Your task to perform on an android device: Show me productivity apps on the Play Store Image 0: 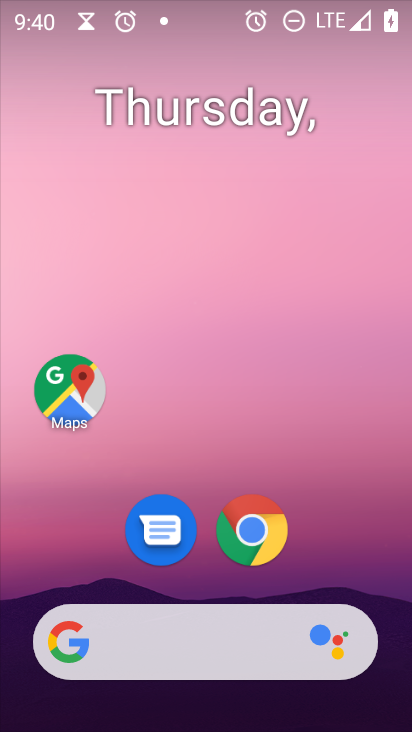
Step 0: drag from (332, 556) to (263, 14)
Your task to perform on an android device: Show me productivity apps on the Play Store Image 1: 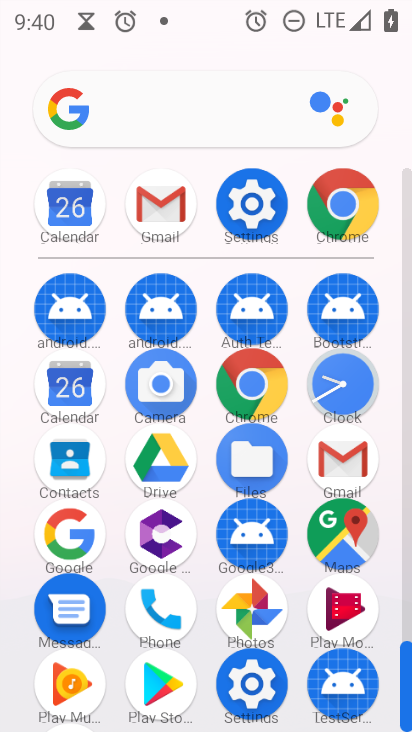
Step 1: drag from (16, 562) to (29, 250)
Your task to perform on an android device: Show me productivity apps on the Play Store Image 2: 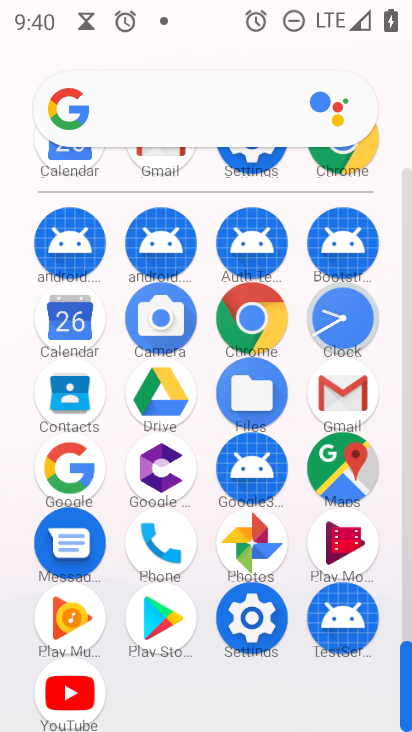
Step 2: click (162, 608)
Your task to perform on an android device: Show me productivity apps on the Play Store Image 3: 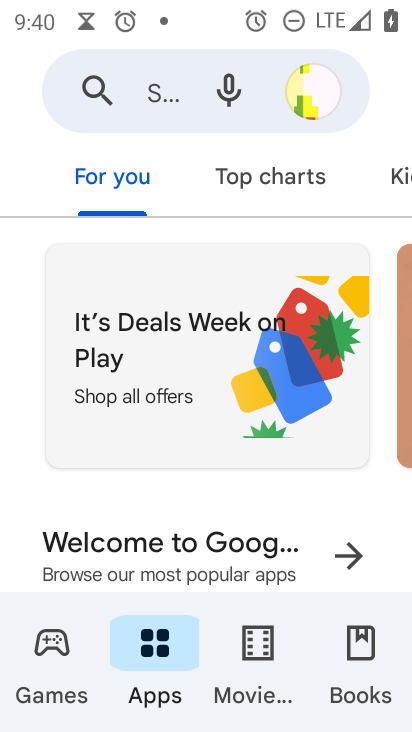
Step 3: drag from (371, 169) to (109, 170)
Your task to perform on an android device: Show me productivity apps on the Play Store Image 4: 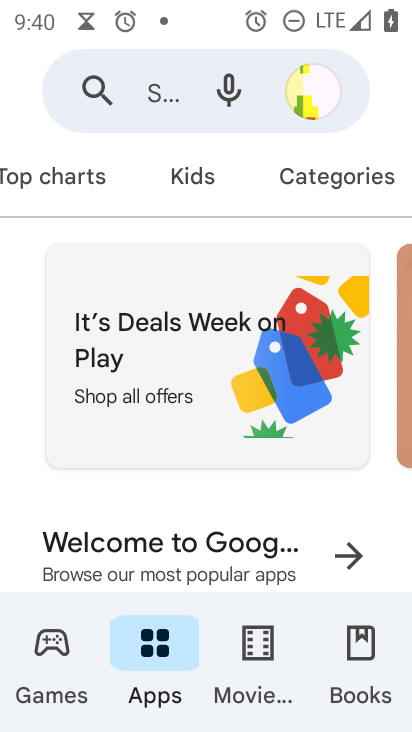
Step 4: click (323, 175)
Your task to perform on an android device: Show me productivity apps on the Play Store Image 5: 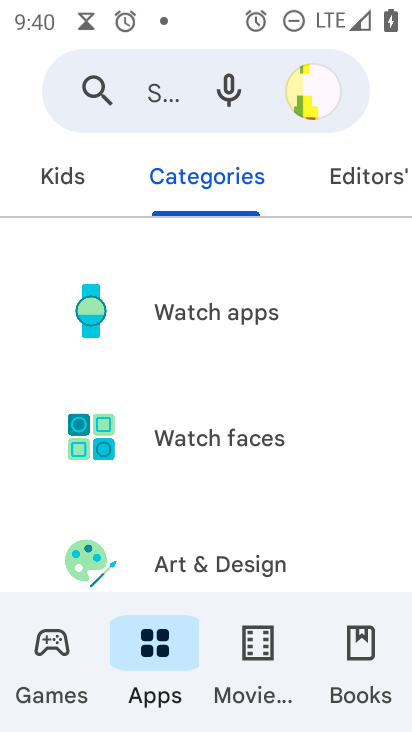
Step 5: drag from (269, 541) to (266, 214)
Your task to perform on an android device: Show me productivity apps on the Play Store Image 6: 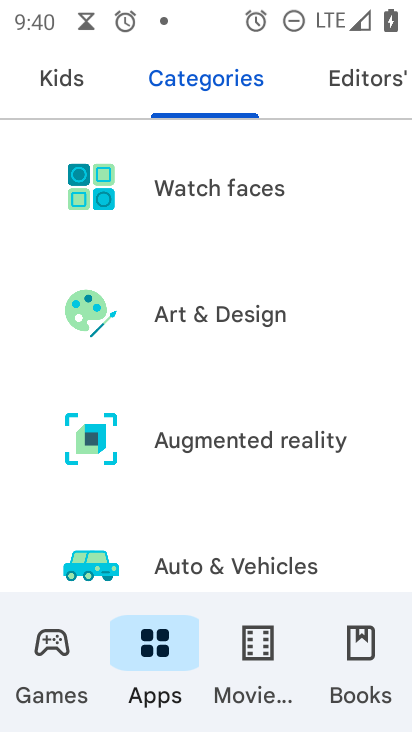
Step 6: drag from (268, 560) to (267, 198)
Your task to perform on an android device: Show me productivity apps on the Play Store Image 7: 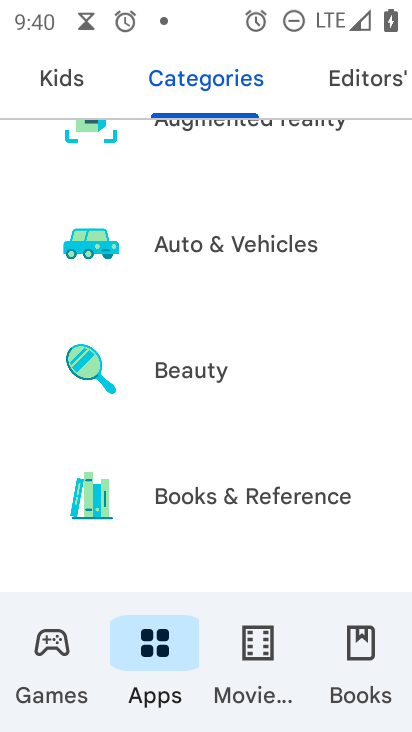
Step 7: drag from (267, 512) to (258, 190)
Your task to perform on an android device: Show me productivity apps on the Play Store Image 8: 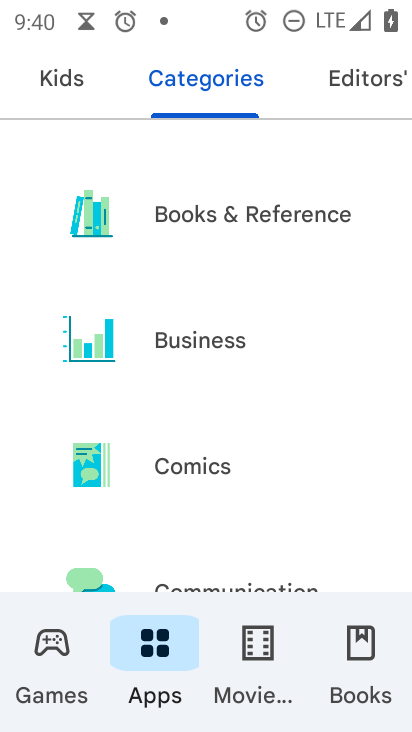
Step 8: drag from (263, 488) to (291, 185)
Your task to perform on an android device: Show me productivity apps on the Play Store Image 9: 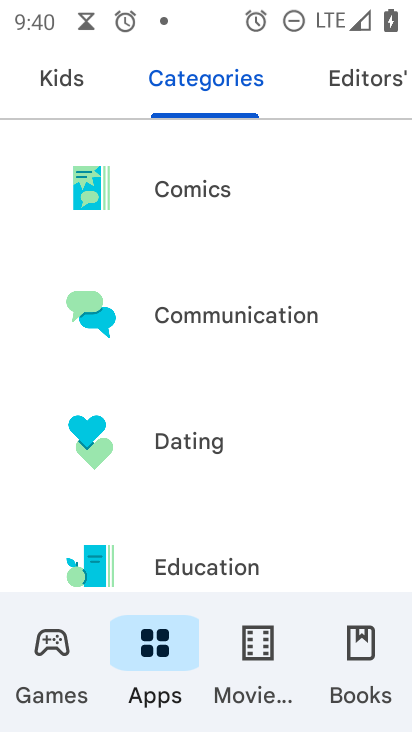
Step 9: drag from (257, 521) to (254, 185)
Your task to perform on an android device: Show me productivity apps on the Play Store Image 10: 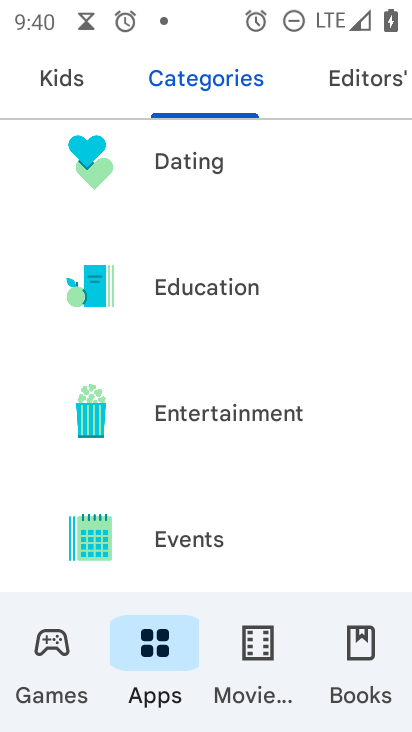
Step 10: drag from (266, 500) to (275, 200)
Your task to perform on an android device: Show me productivity apps on the Play Store Image 11: 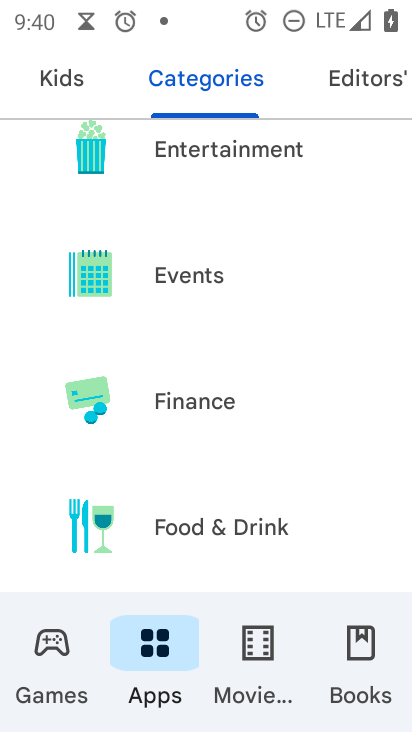
Step 11: drag from (279, 546) to (288, 187)
Your task to perform on an android device: Show me productivity apps on the Play Store Image 12: 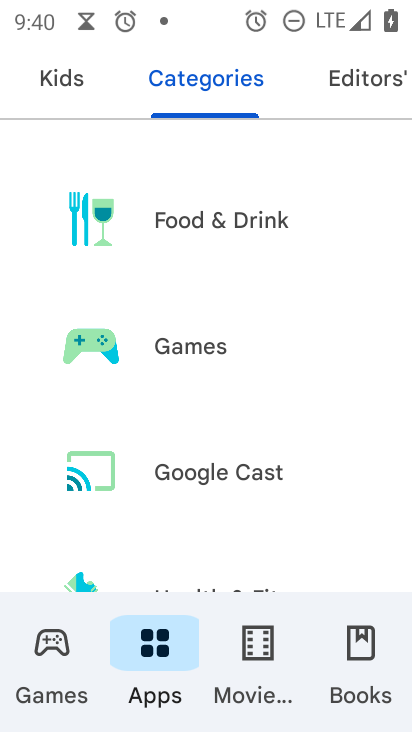
Step 12: drag from (282, 517) to (282, 172)
Your task to perform on an android device: Show me productivity apps on the Play Store Image 13: 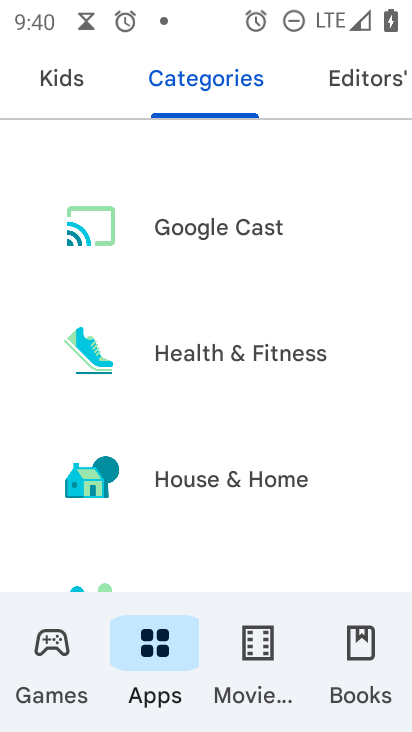
Step 13: drag from (268, 501) to (261, 163)
Your task to perform on an android device: Show me productivity apps on the Play Store Image 14: 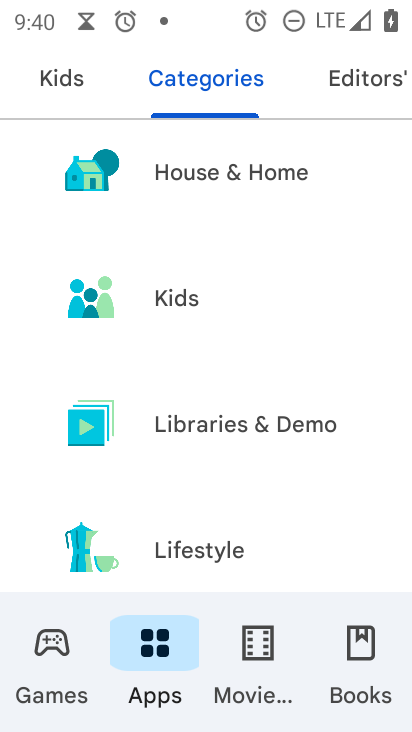
Step 14: drag from (271, 511) to (272, 189)
Your task to perform on an android device: Show me productivity apps on the Play Store Image 15: 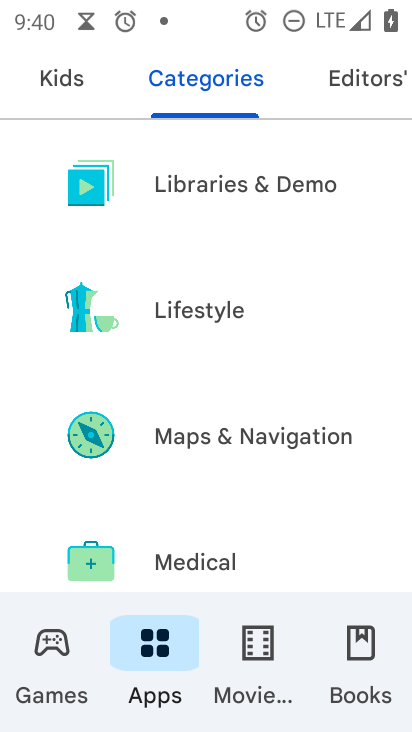
Step 15: drag from (256, 495) to (270, 165)
Your task to perform on an android device: Show me productivity apps on the Play Store Image 16: 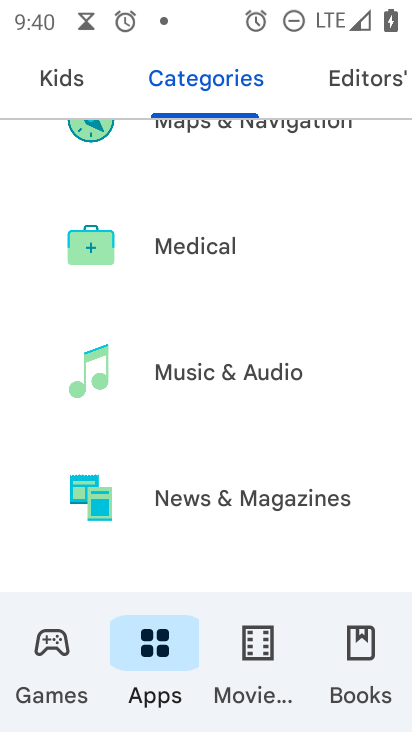
Step 16: drag from (314, 496) to (311, 182)
Your task to perform on an android device: Show me productivity apps on the Play Store Image 17: 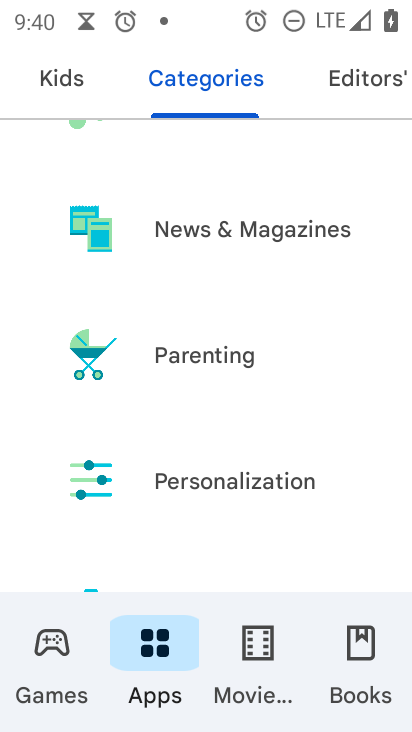
Step 17: drag from (256, 518) to (267, 191)
Your task to perform on an android device: Show me productivity apps on the Play Store Image 18: 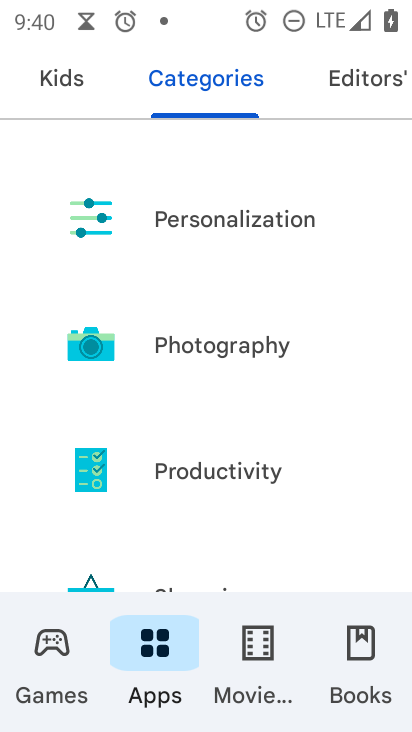
Step 18: click (247, 461)
Your task to perform on an android device: Show me productivity apps on the Play Store Image 19: 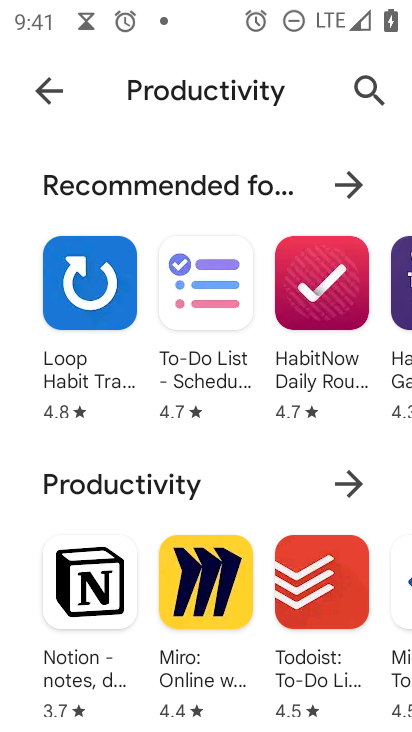
Step 19: task complete